Your task to perform on an android device: Open Chrome and go to settings Image 0: 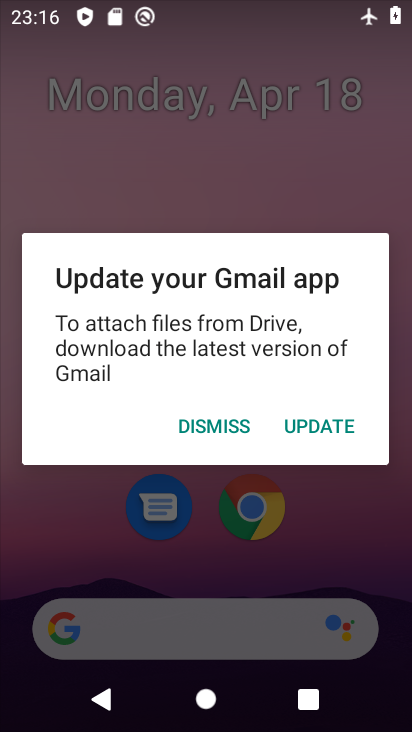
Step 0: press home button
Your task to perform on an android device: Open Chrome and go to settings Image 1: 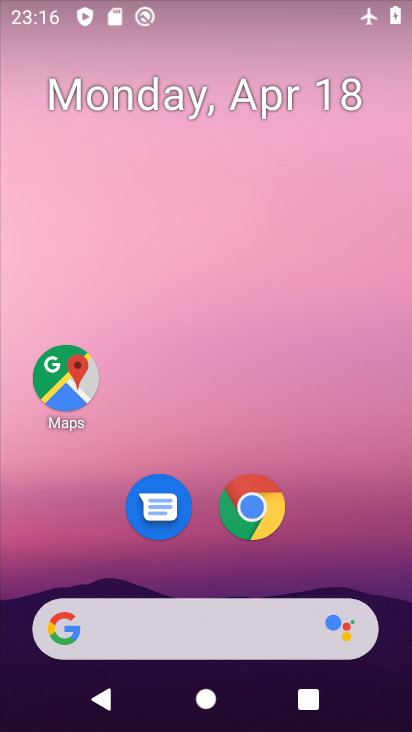
Step 1: click (259, 519)
Your task to perform on an android device: Open Chrome and go to settings Image 2: 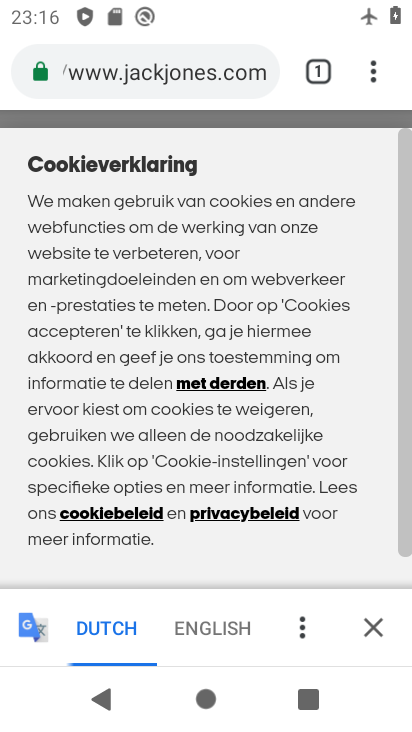
Step 2: click (368, 75)
Your task to perform on an android device: Open Chrome and go to settings Image 3: 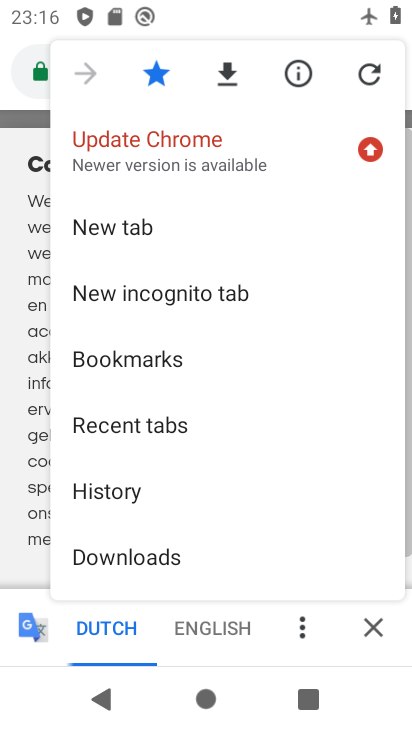
Step 3: drag from (259, 505) to (277, 138)
Your task to perform on an android device: Open Chrome and go to settings Image 4: 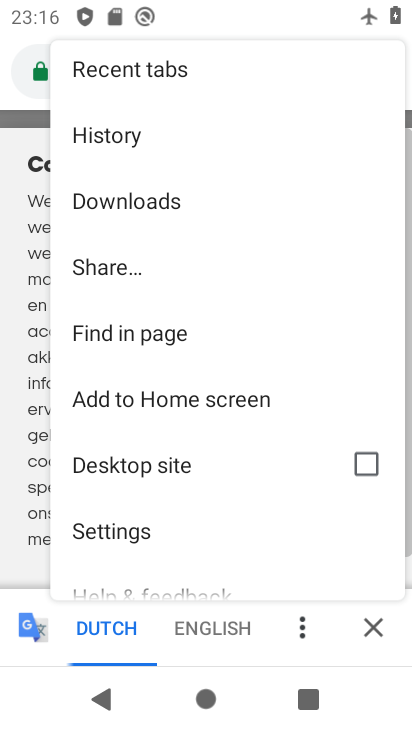
Step 4: click (134, 524)
Your task to perform on an android device: Open Chrome and go to settings Image 5: 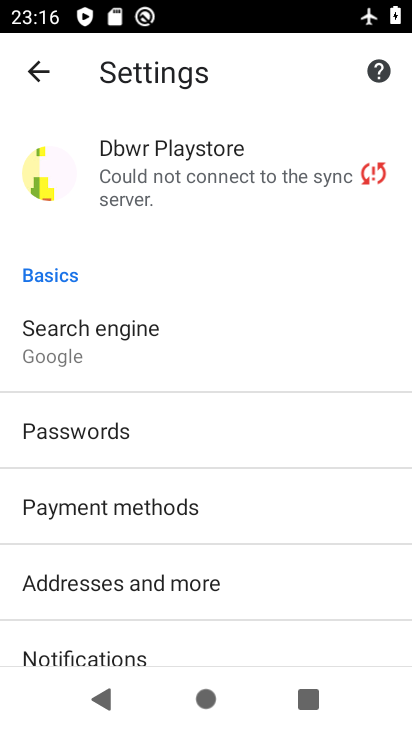
Step 5: task complete